Your task to perform on an android device: choose inbox layout in the gmail app Image 0: 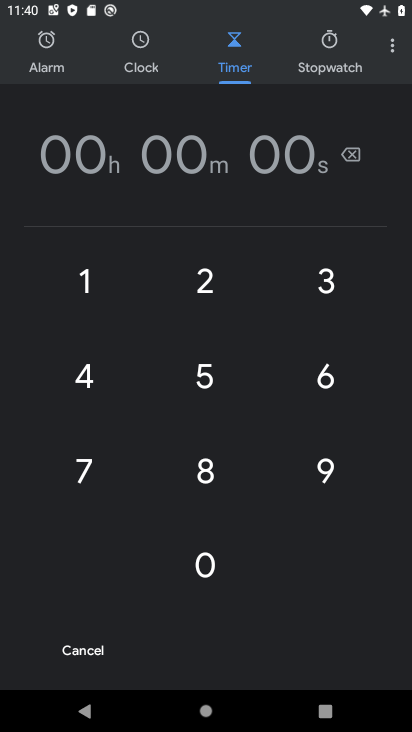
Step 0: press home button
Your task to perform on an android device: choose inbox layout in the gmail app Image 1: 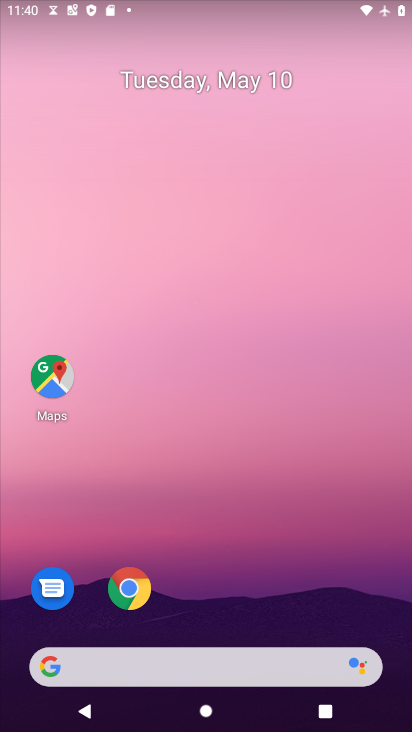
Step 1: drag from (303, 594) to (142, 147)
Your task to perform on an android device: choose inbox layout in the gmail app Image 2: 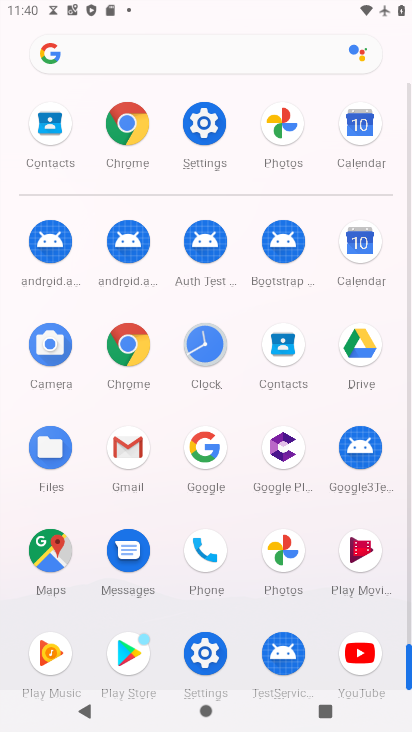
Step 2: click (128, 450)
Your task to perform on an android device: choose inbox layout in the gmail app Image 3: 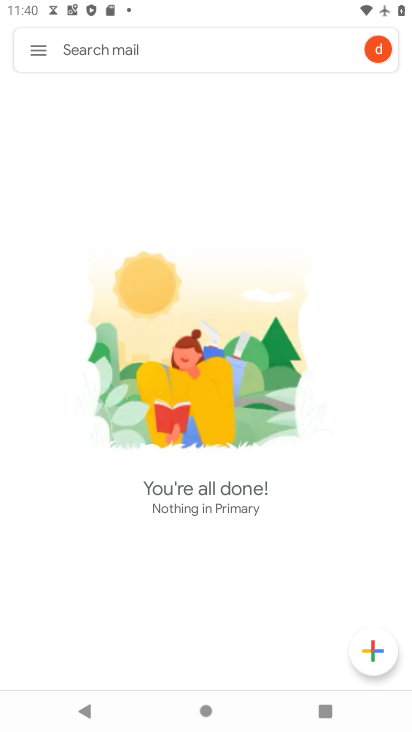
Step 3: click (39, 45)
Your task to perform on an android device: choose inbox layout in the gmail app Image 4: 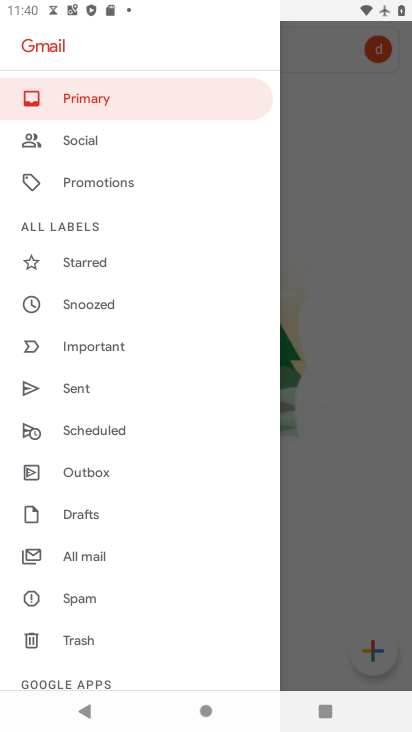
Step 4: click (80, 554)
Your task to perform on an android device: choose inbox layout in the gmail app Image 5: 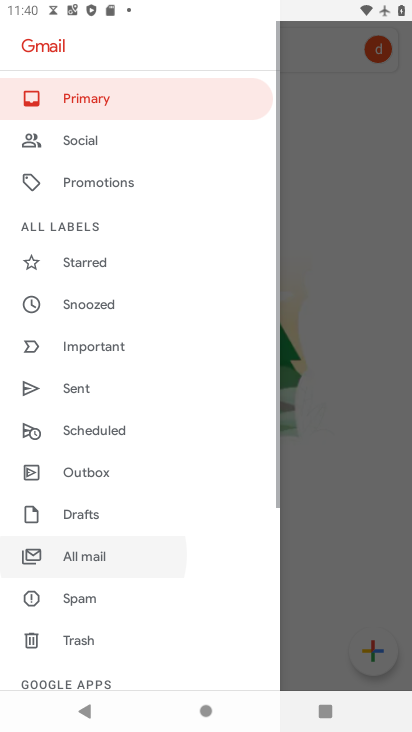
Step 5: click (80, 554)
Your task to perform on an android device: choose inbox layout in the gmail app Image 6: 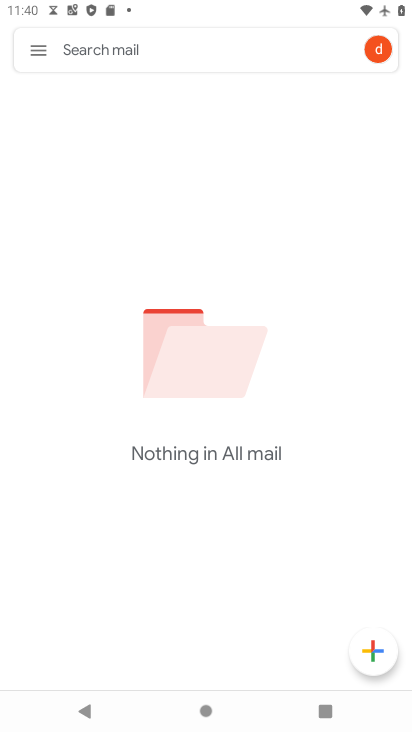
Step 6: task complete